Your task to perform on an android device: turn off wifi Image 0: 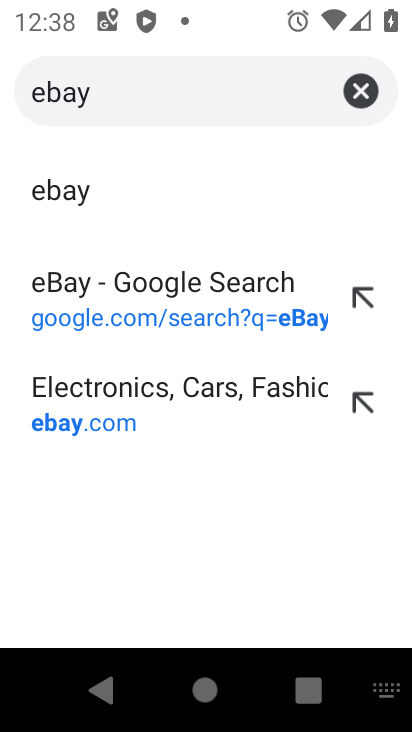
Step 0: press home button
Your task to perform on an android device: turn off wifi Image 1: 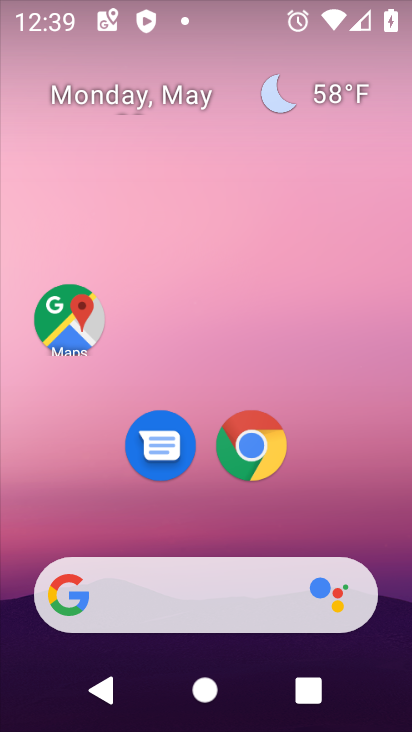
Step 1: drag from (238, 7) to (199, 598)
Your task to perform on an android device: turn off wifi Image 2: 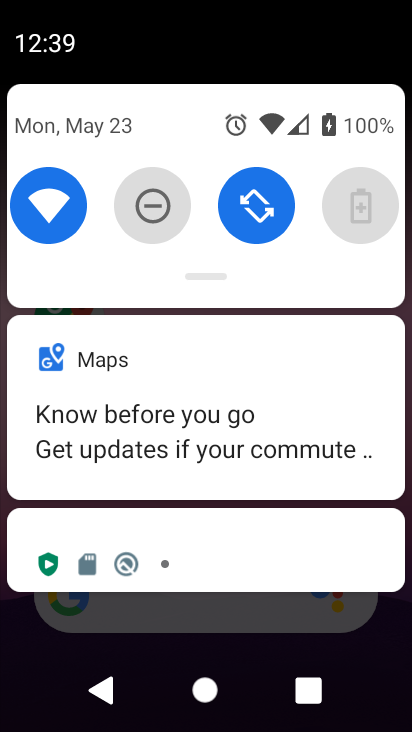
Step 2: click (45, 205)
Your task to perform on an android device: turn off wifi Image 3: 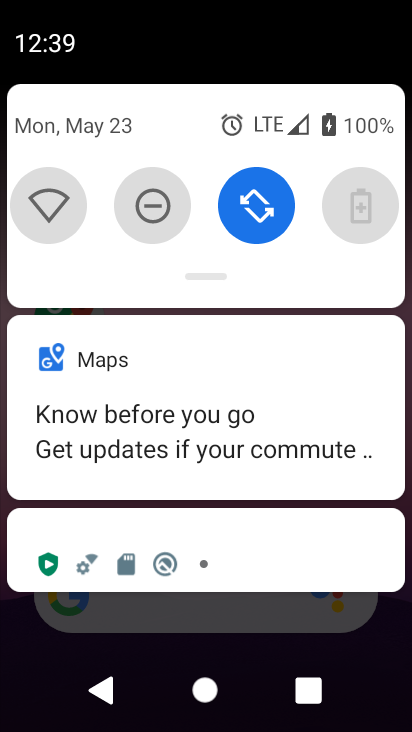
Step 3: task complete